Your task to perform on an android device: install app "Etsy: Buy & Sell Unique Items" Image 0: 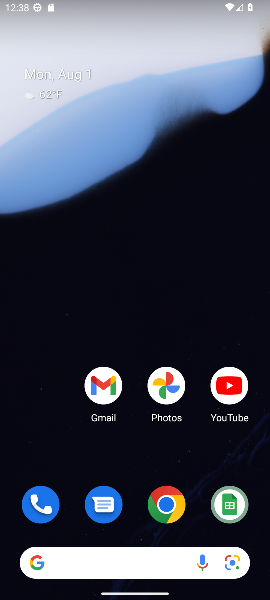
Step 0: drag from (97, 566) to (232, 31)
Your task to perform on an android device: install app "Etsy: Buy & Sell Unique Items" Image 1: 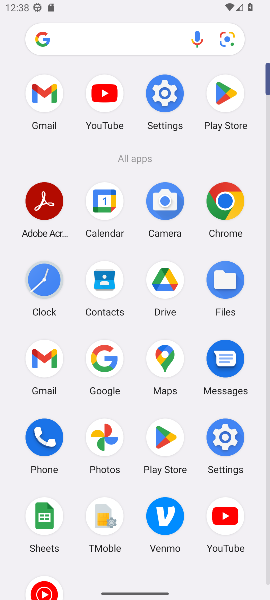
Step 1: click (216, 96)
Your task to perform on an android device: install app "Etsy: Buy & Sell Unique Items" Image 2: 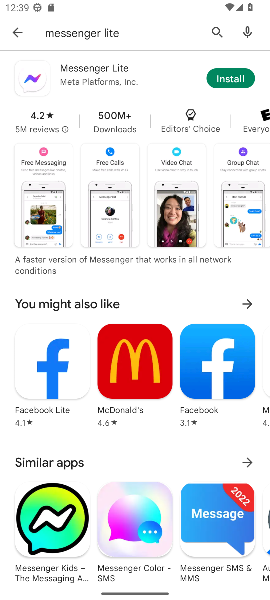
Step 2: click (219, 31)
Your task to perform on an android device: install app "Etsy: Buy & Sell Unique Items" Image 3: 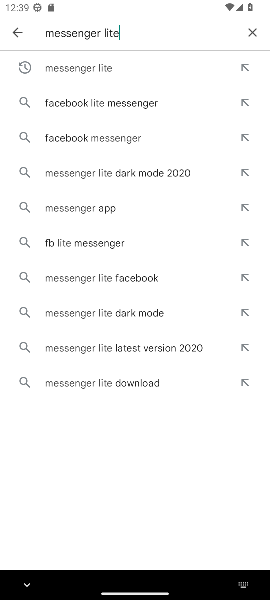
Step 3: click (254, 29)
Your task to perform on an android device: install app "Etsy: Buy & Sell Unique Items" Image 4: 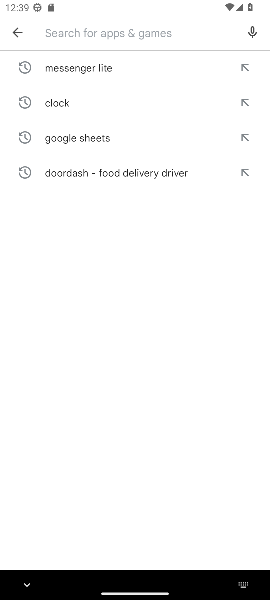
Step 4: type "etsy"
Your task to perform on an android device: install app "Etsy: Buy & Sell Unique Items" Image 5: 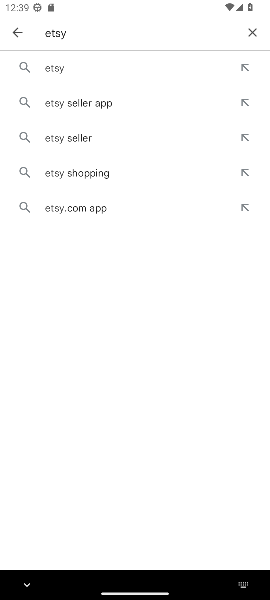
Step 5: click (60, 74)
Your task to perform on an android device: install app "Etsy: Buy & Sell Unique Items" Image 6: 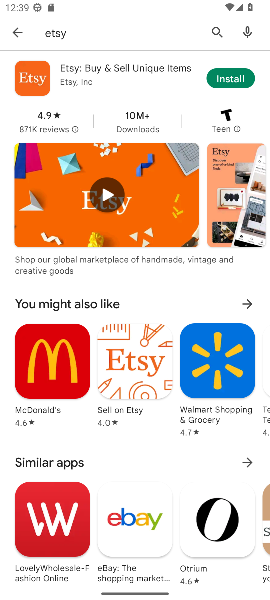
Step 6: click (236, 82)
Your task to perform on an android device: install app "Etsy: Buy & Sell Unique Items" Image 7: 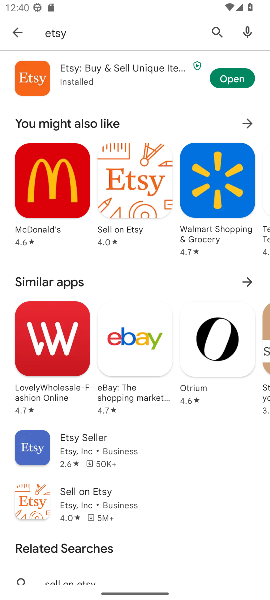
Step 7: task complete